Your task to perform on an android device: turn on showing notifications on the lock screen Image 0: 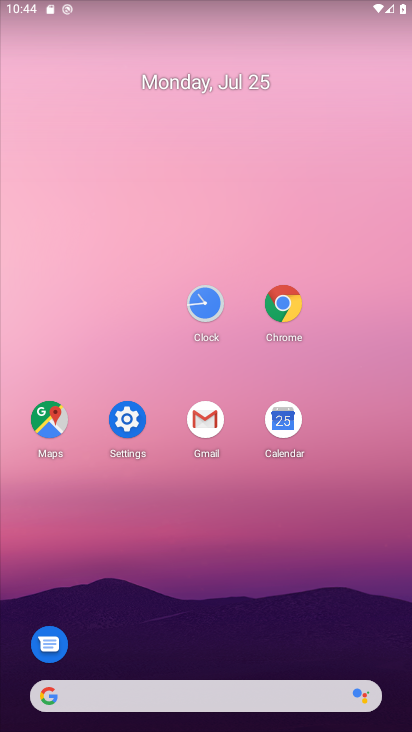
Step 0: drag from (393, 706) to (343, 160)
Your task to perform on an android device: turn on showing notifications on the lock screen Image 1: 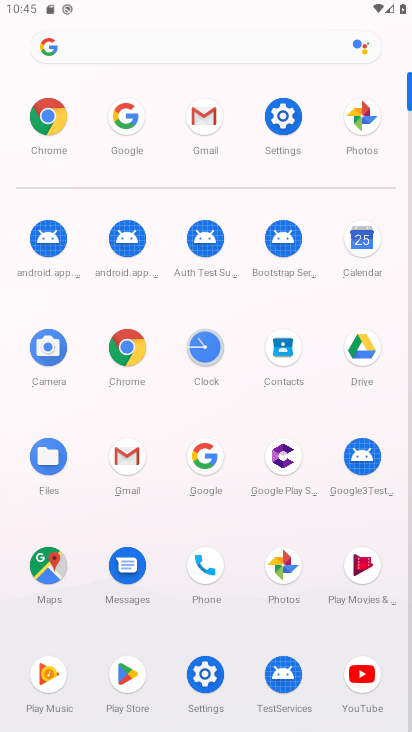
Step 1: click (280, 125)
Your task to perform on an android device: turn on showing notifications on the lock screen Image 2: 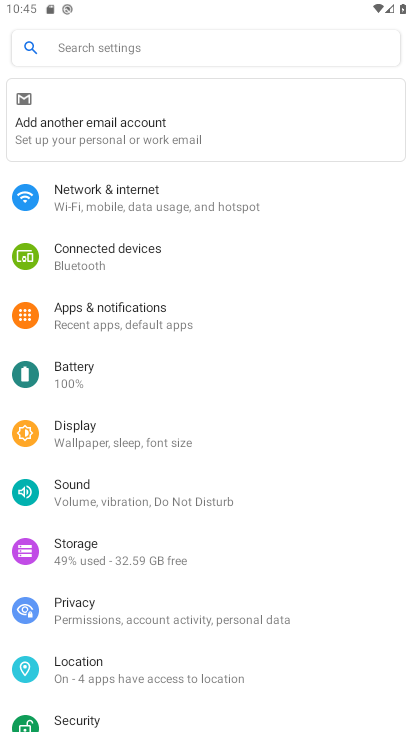
Step 2: click (109, 312)
Your task to perform on an android device: turn on showing notifications on the lock screen Image 3: 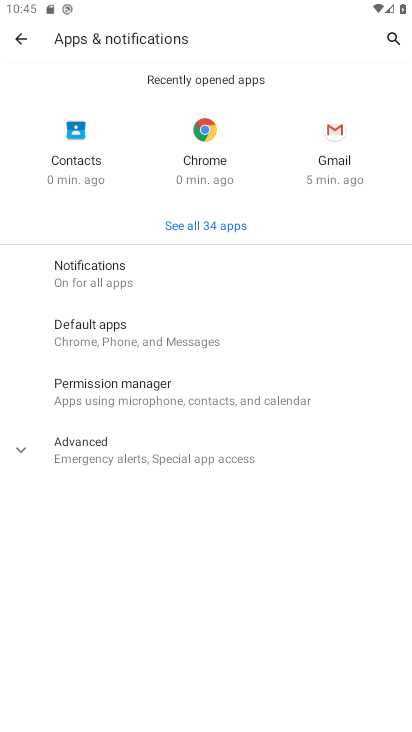
Step 3: click (95, 274)
Your task to perform on an android device: turn on showing notifications on the lock screen Image 4: 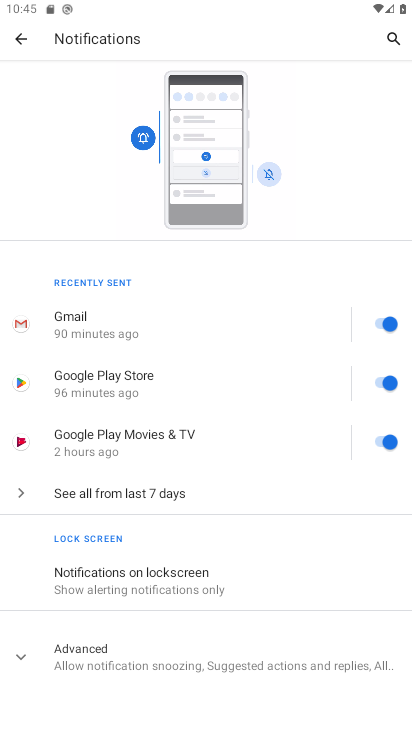
Step 4: click (115, 578)
Your task to perform on an android device: turn on showing notifications on the lock screen Image 5: 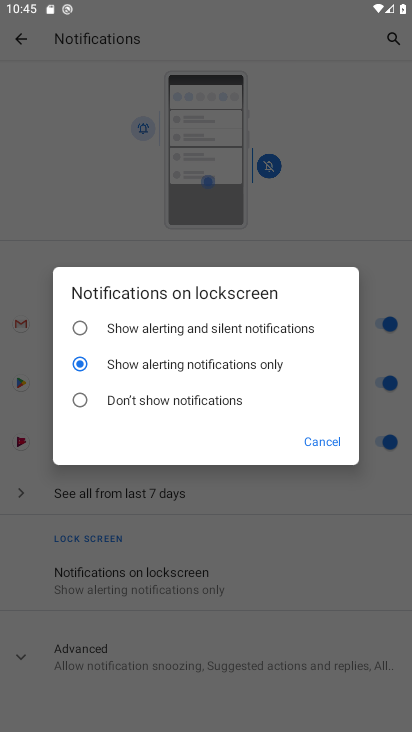
Step 5: click (86, 327)
Your task to perform on an android device: turn on showing notifications on the lock screen Image 6: 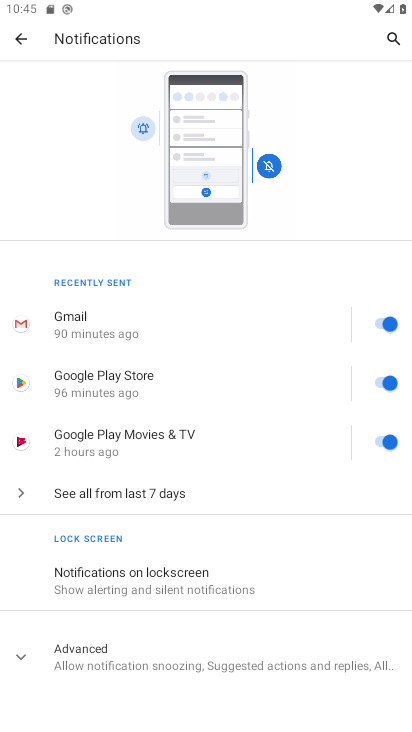
Step 6: task complete